Your task to perform on an android device: change the clock display to digital Image 0: 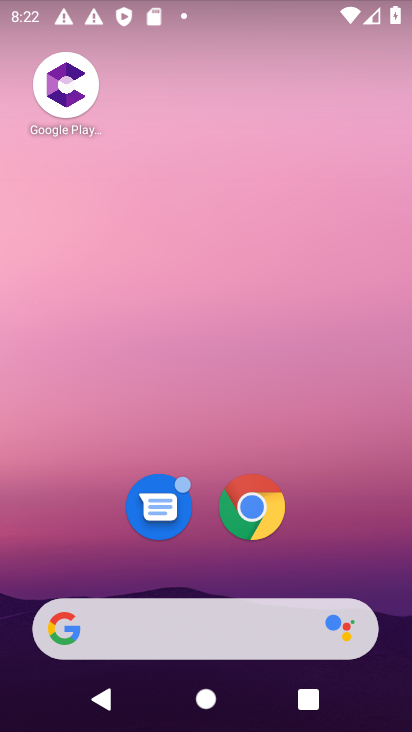
Step 0: drag from (200, 522) to (200, 59)
Your task to perform on an android device: change the clock display to digital Image 1: 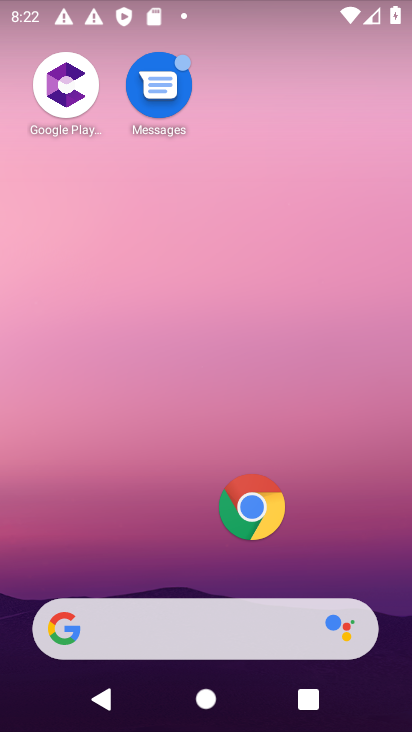
Step 1: drag from (200, 569) to (203, 116)
Your task to perform on an android device: change the clock display to digital Image 2: 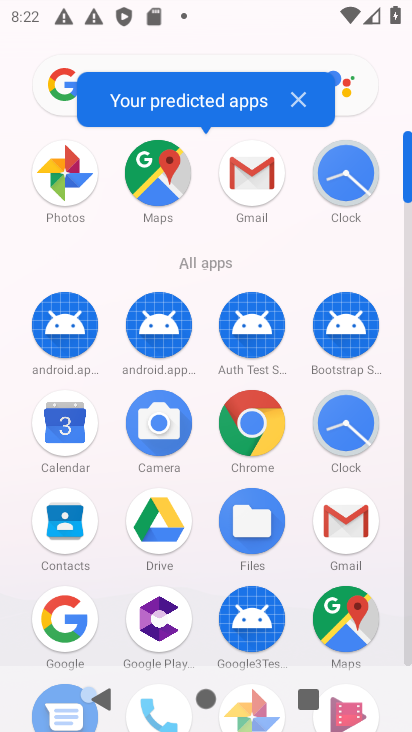
Step 2: click (343, 436)
Your task to perform on an android device: change the clock display to digital Image 3: 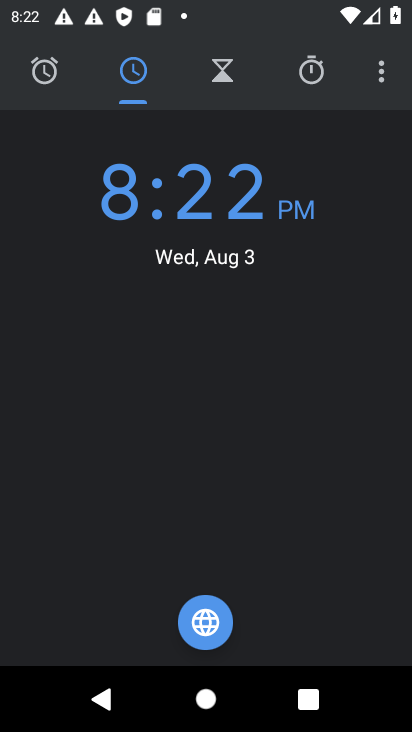
Step 3: click (378, 81)
Your task to perform on an android device: change the clock display to digital Image 4: 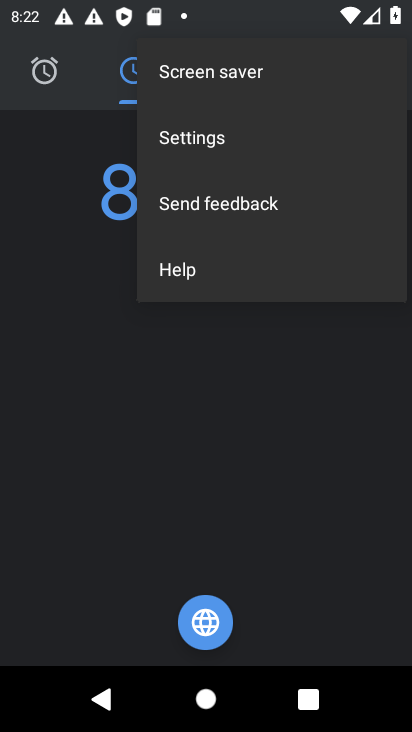
Step 4: click (161, 137)
Your task to perform on an android device: change the clock display to digital Image 5: 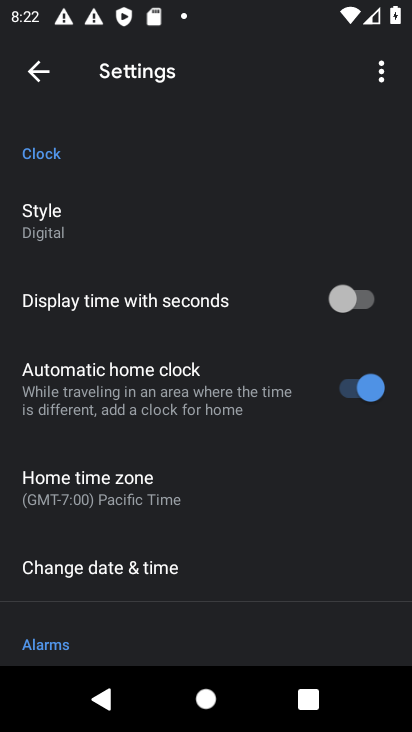
Step 5: click (67, 217)
Your task to perform on an android device: change the clock display to digital Image 6: 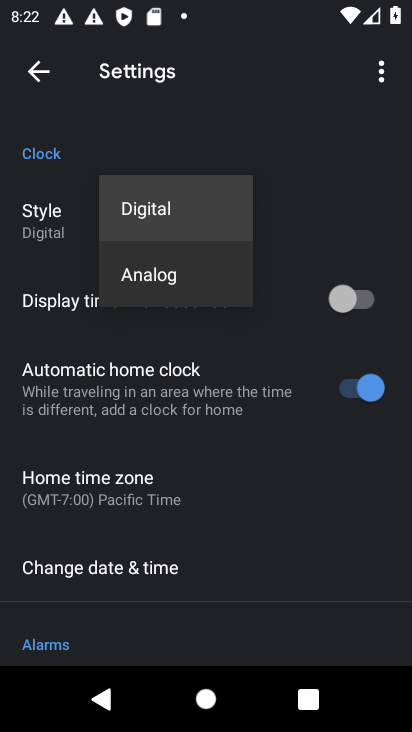
Step 6: click (129, 218)
Your task to perform on an android device: change the clock display to digital Image 7: 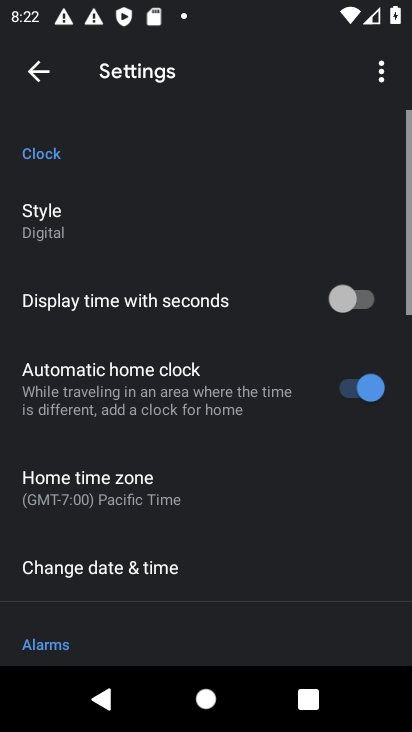
Step 7: task complete